Your task to perform on an android device: Go to CNN.com Image 0: 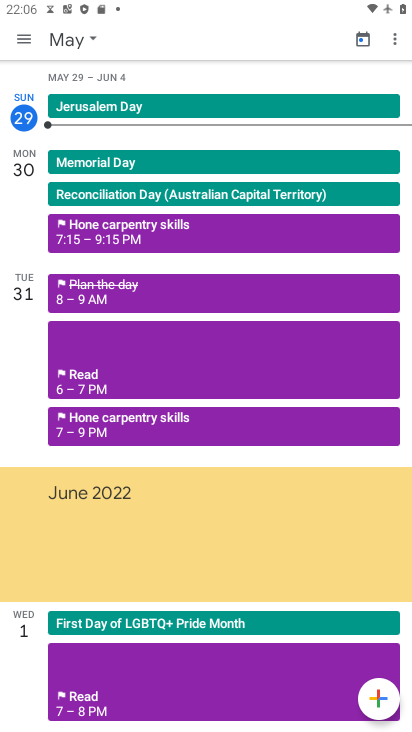
Step 0: press home button
Your task to perform on an android device: Go to CNN.com Image 1: 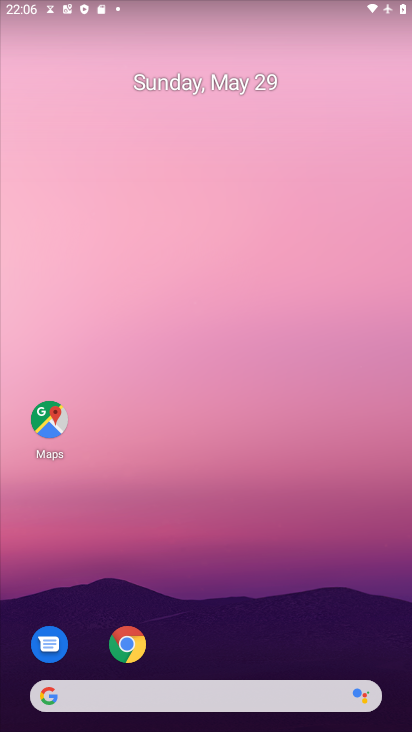
Step 1: click (132, 640)
Your task to perform on an android device: Go to CNN.com Image 2: 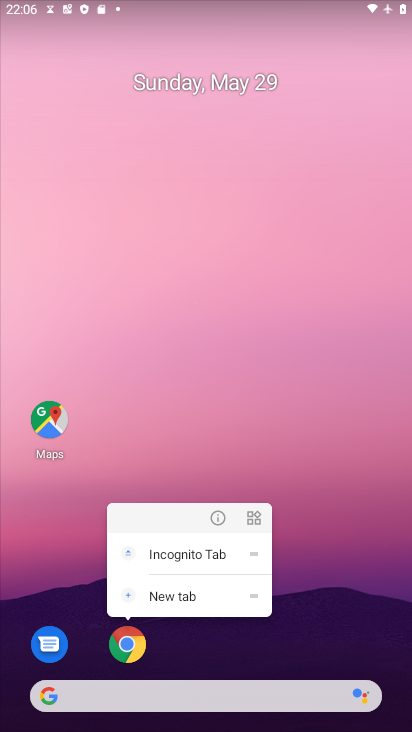
Step 2: click (132, 640)
Your task to perform on an android device: Go to CNN.com Image 3: 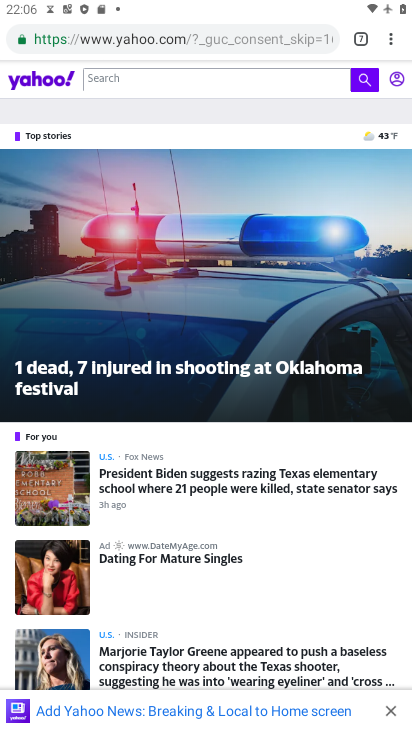
Step 3: click (395, 41)
Your task to perform on an android device: Go to CNN.com Image 4: 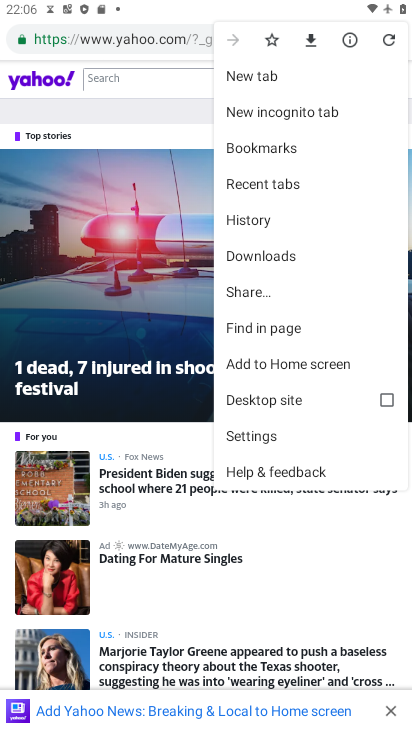
Step 4: click (241, 73)
Your task to perform on an android device: Go to CNN.com Image 5: 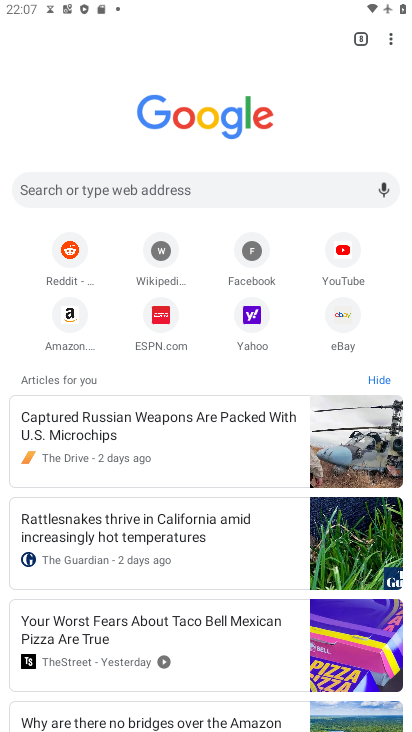
Step 5: click (247, 176)
Your task to perform on an android device: Go to CNN.com Image 6: 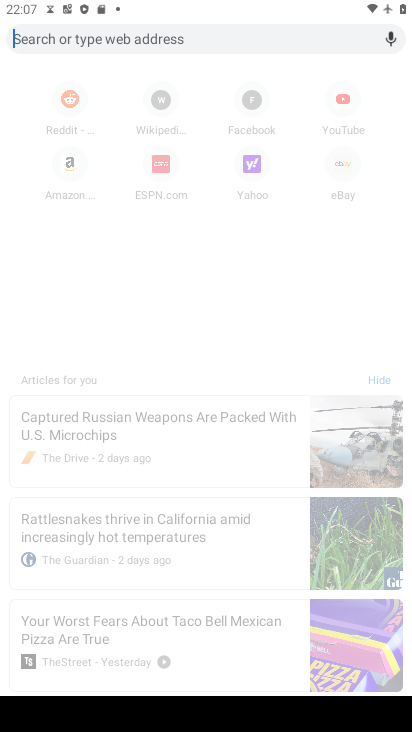
Step 6: type "CNN."
Your task to perform on an android device: Go to CNN.com Image 7: 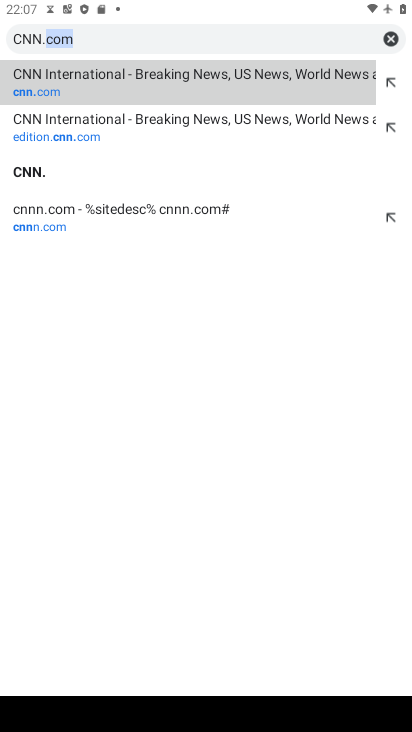
Step 7: click (140, 80)
Your task to perform on an android device: Go to CNN.com Image 8: 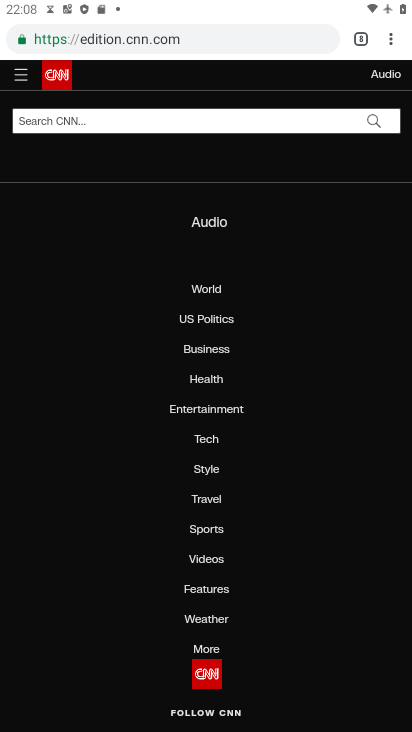
Step 8: task complete